Your task to perform on an android device: Go to sound settings Image 0: 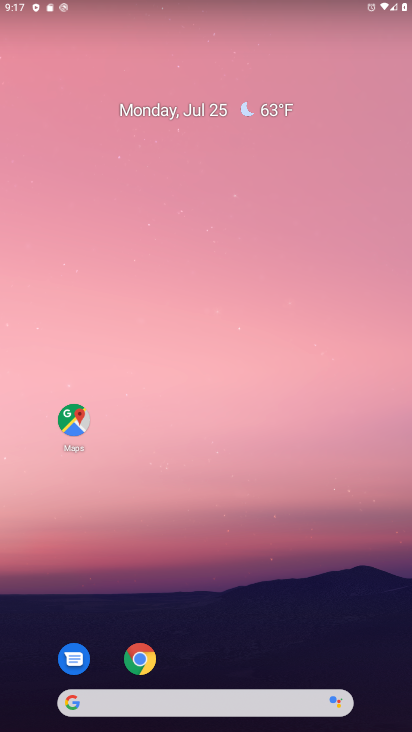
Step 0: drag from (203, 725) to (214, 76)
Your task to perform on an android device: Go to sound settings Image 1: 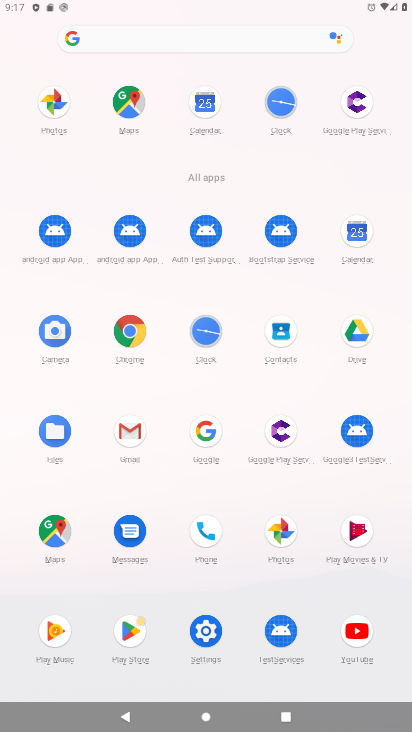
Step 1: click (202, 623)
Your task to perform on an android device: Go to sound settings Image 2: 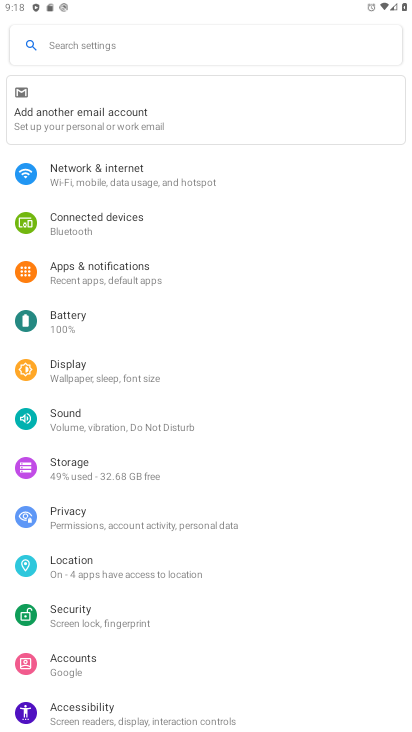
Step 2: click (63, 416)
Your task to perform on an android device: Go to sound settings Image 3: 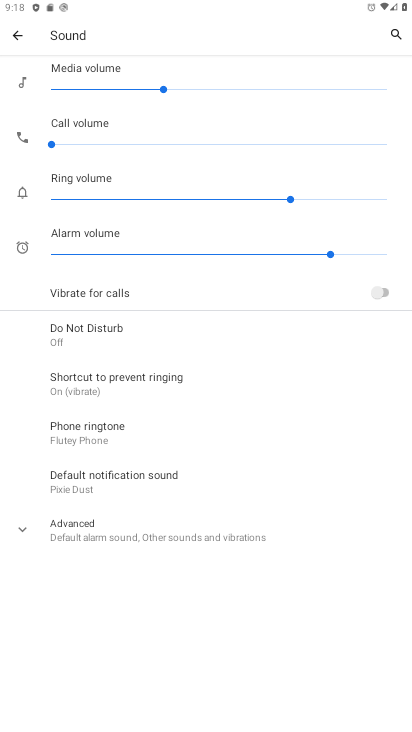
Step 3: task complete